Your task to perform on an android device: clear history in the chrome app Image 0: 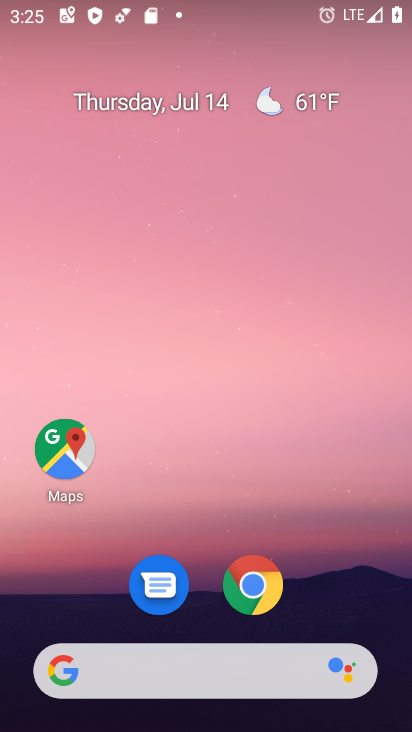
Step 0: click (268, 574)
Your task to perform on an android device: clear history in the chrome app Image 1: 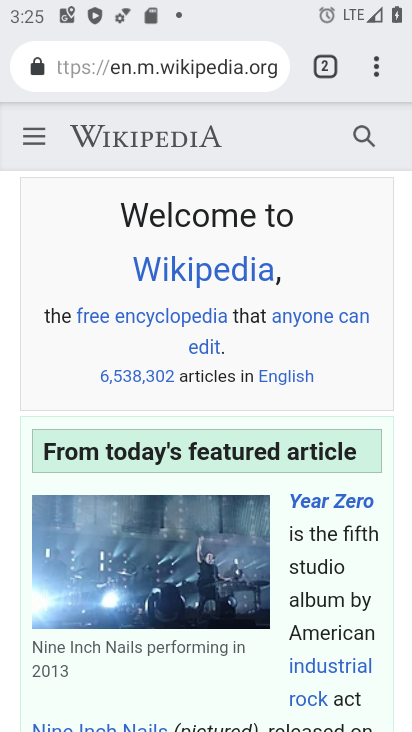
Step 1: click (373, 70)
Your task to perform on an android device: clear history in the chrome app Image 2: 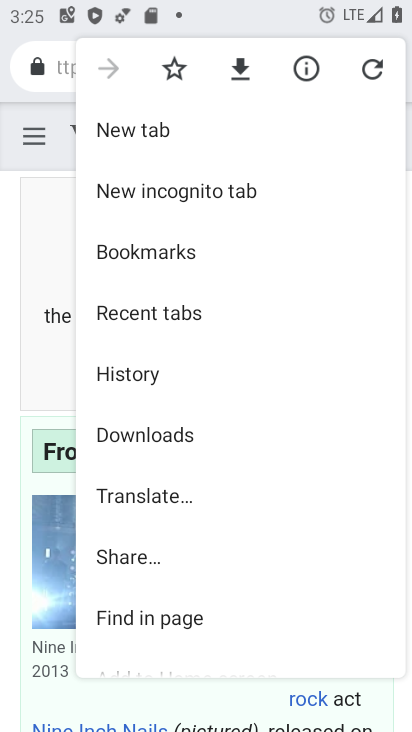
Step 2: click (146, 371)
Your task to perform on an android device: clear history in the chrome app Image 3: 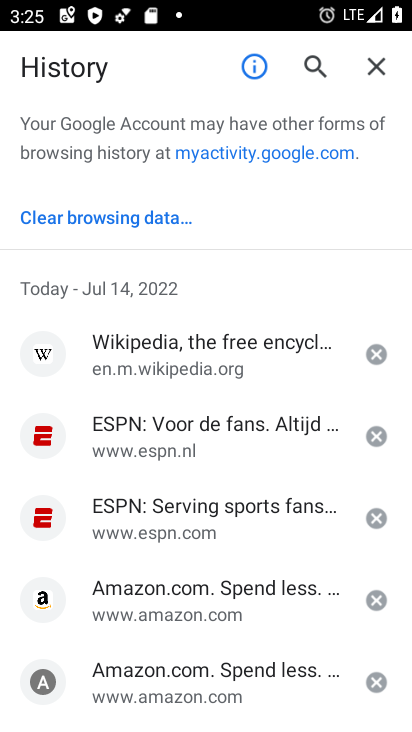
Step 3: click (143, 211)
Your task to perform on an android device: clear history in the chrome app Image 4: 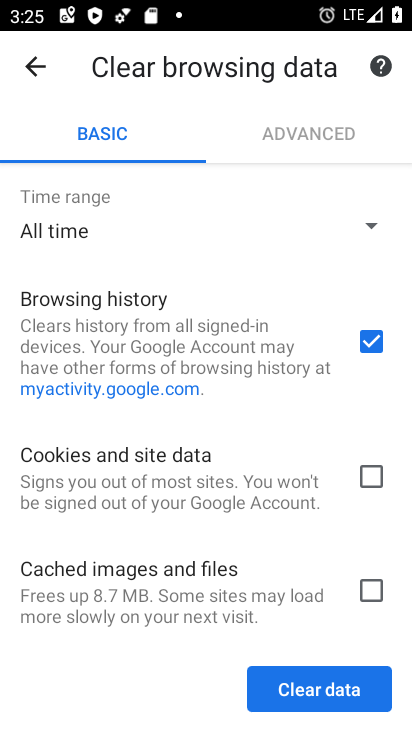
Step 4: click (323, 691)
Your task to perform on an android device: clear history in the chrome app Image 5: 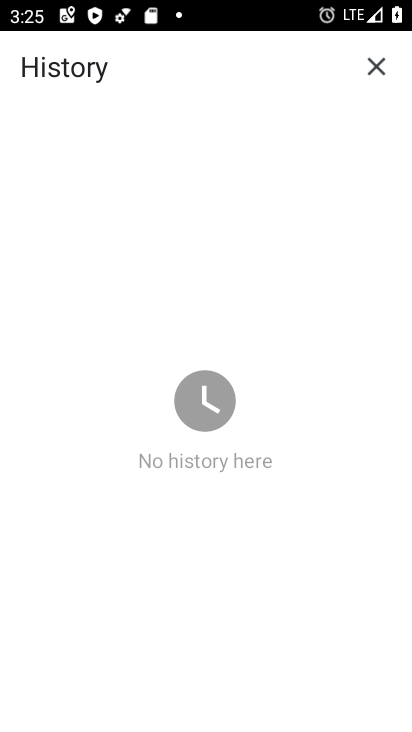
Step 5: task complete